Your task to perform on an android device: Open ESPN.com Image 0: 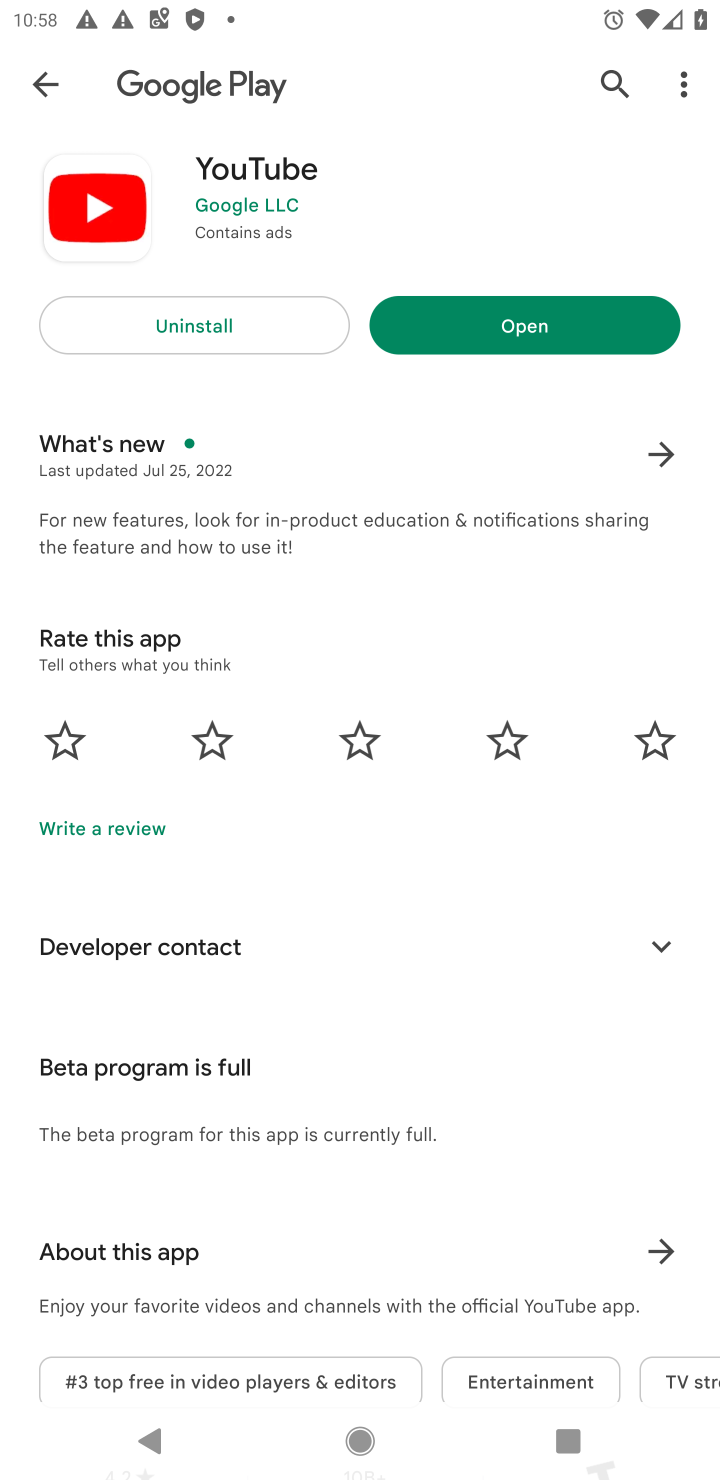
Step 0: press home button
Your task to perform on an android device: Open ESPN.com Image 1: 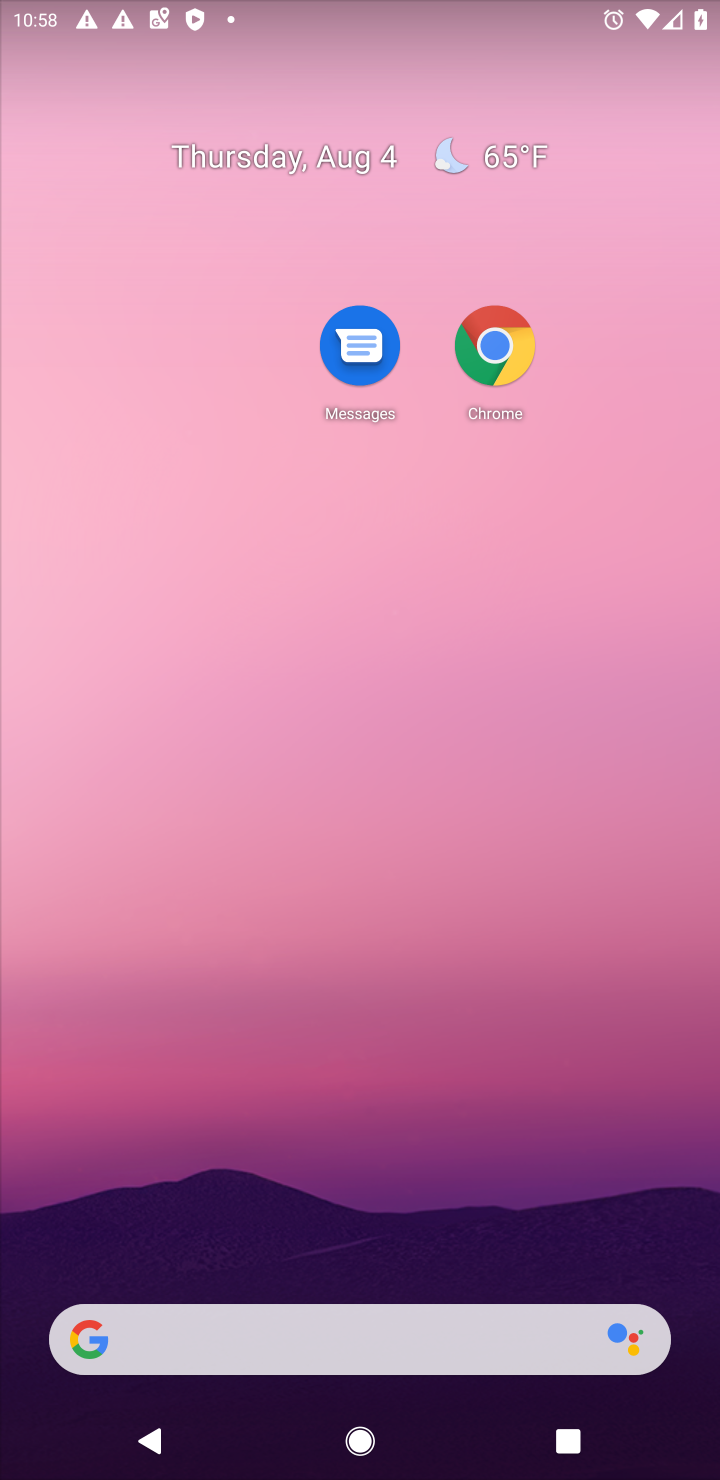
Step 1: drag from (404, 1198) to (613, 131)
Your task to perform on an android device: Open ESPN.com Image 2: 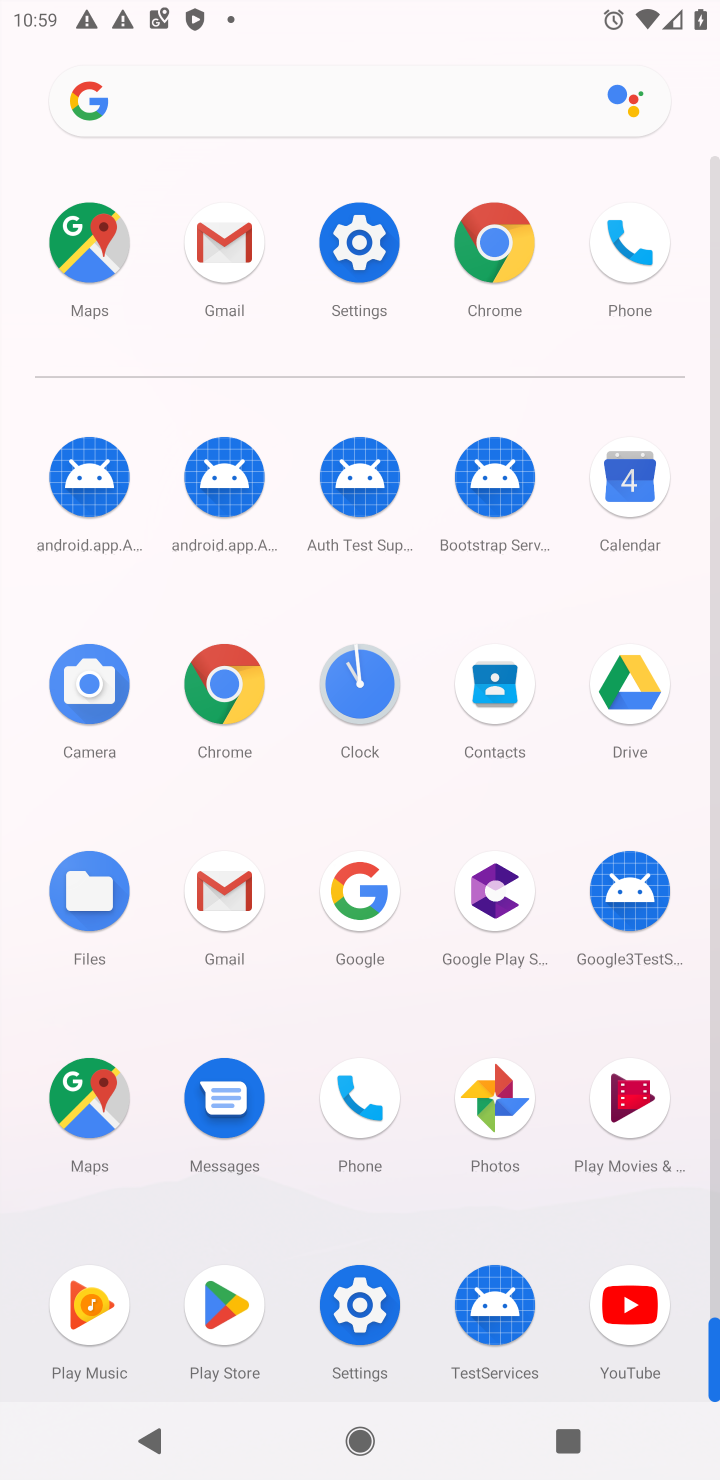
Step 2: click (498, 279)
Your task to perform on an android device: Open ESPN.com Image 3: 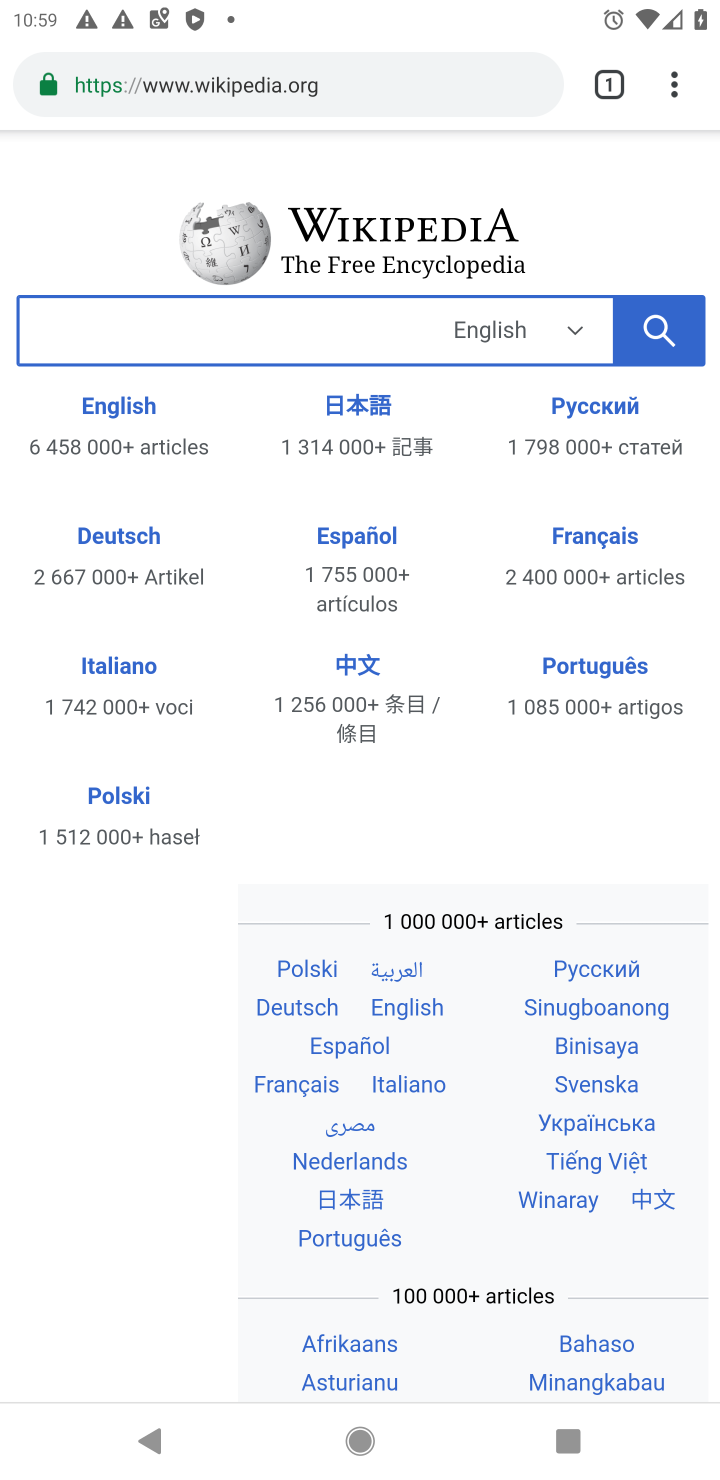
Step 3: click (367, 84)
Your task to perform on an android device: Open ESPN.com Image 4: 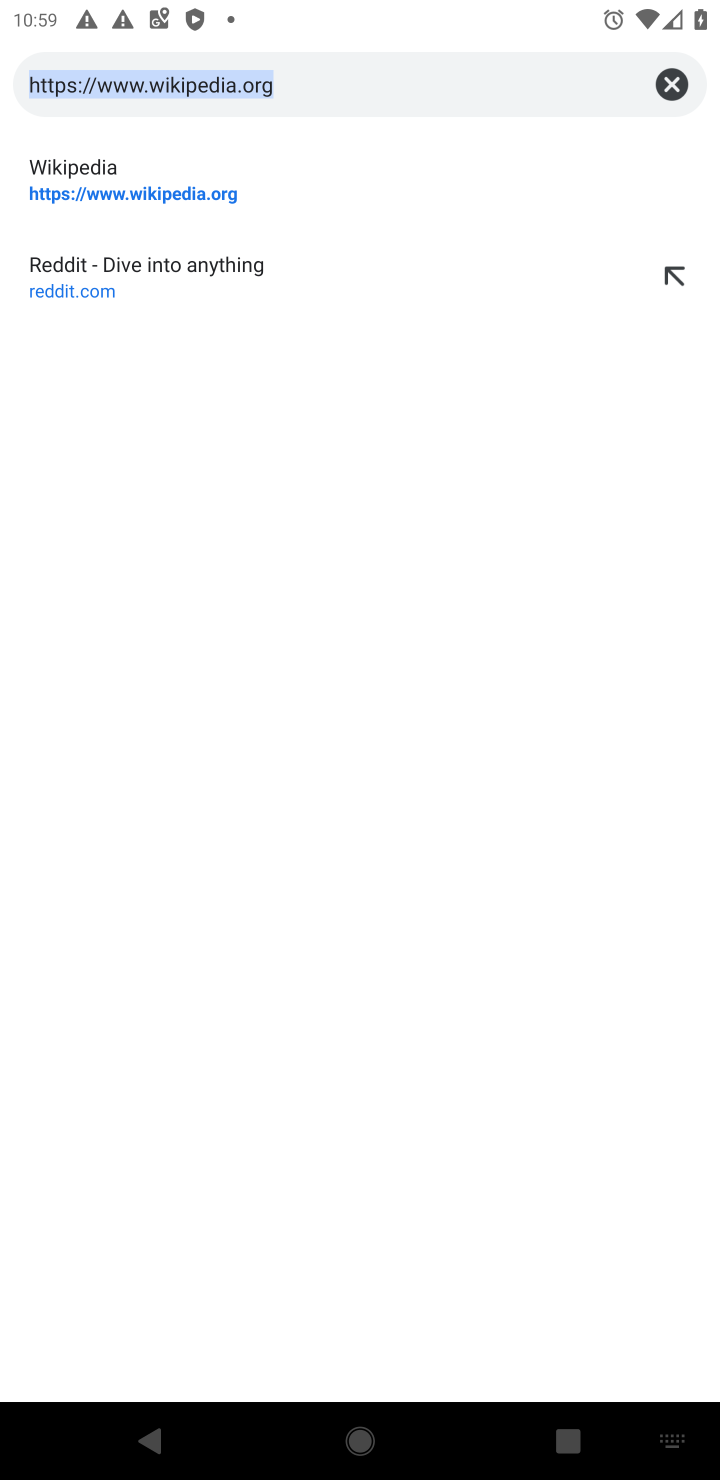
Step 4: click (677, 83)
Your task to perform on an android device: Open ESPN.com Image 5: 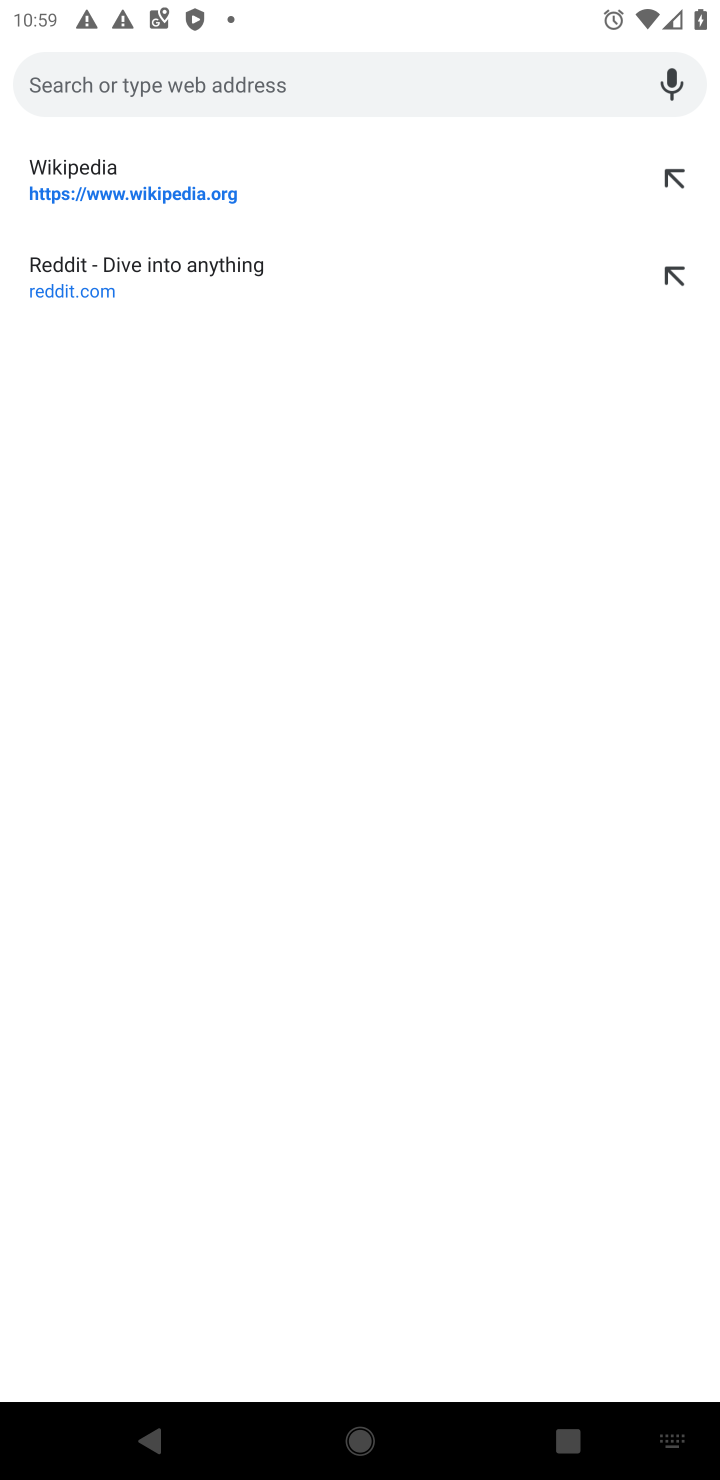
Step 5: type "espn.com"
Your task to perform on an android device: Open ESPN.com Image 6: 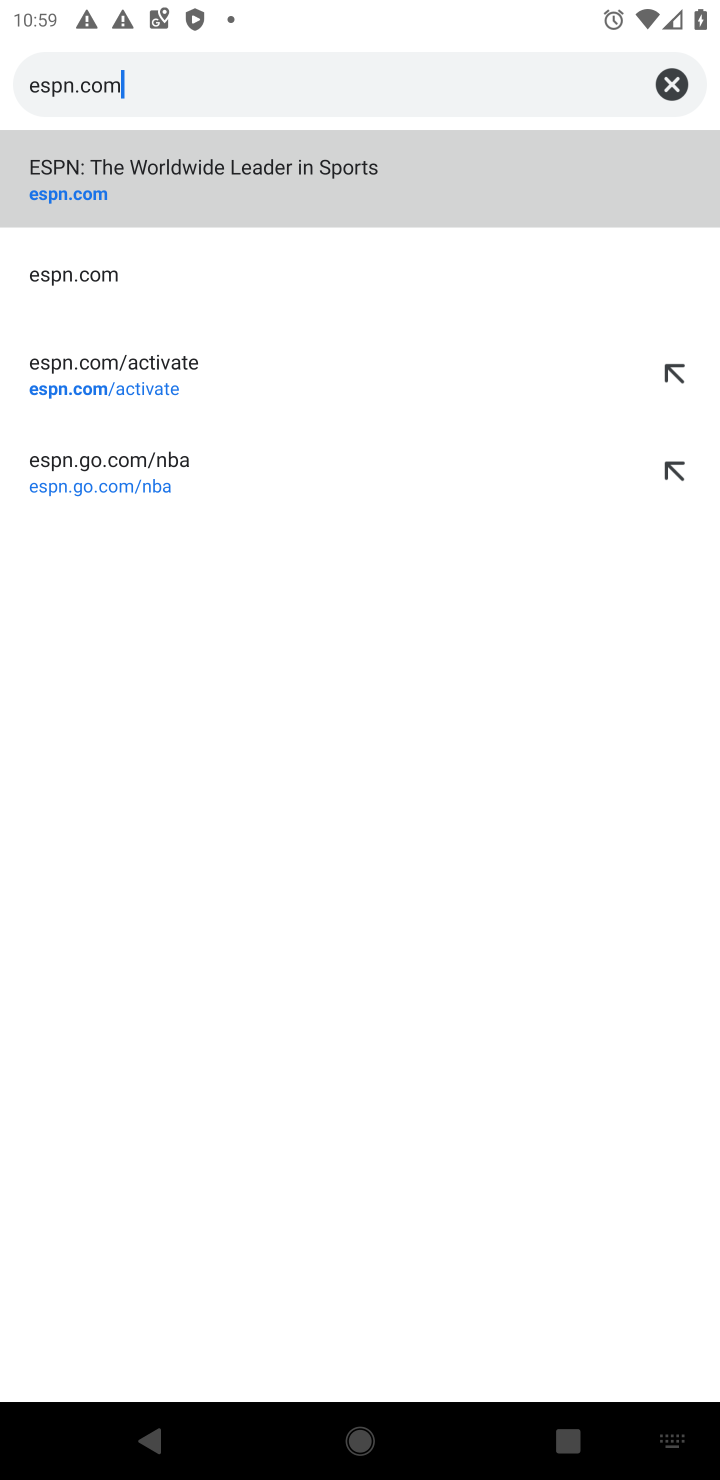
Step 6: click (61, 168)
Your task to perform on an android device: Open ESPN.com Image 7: 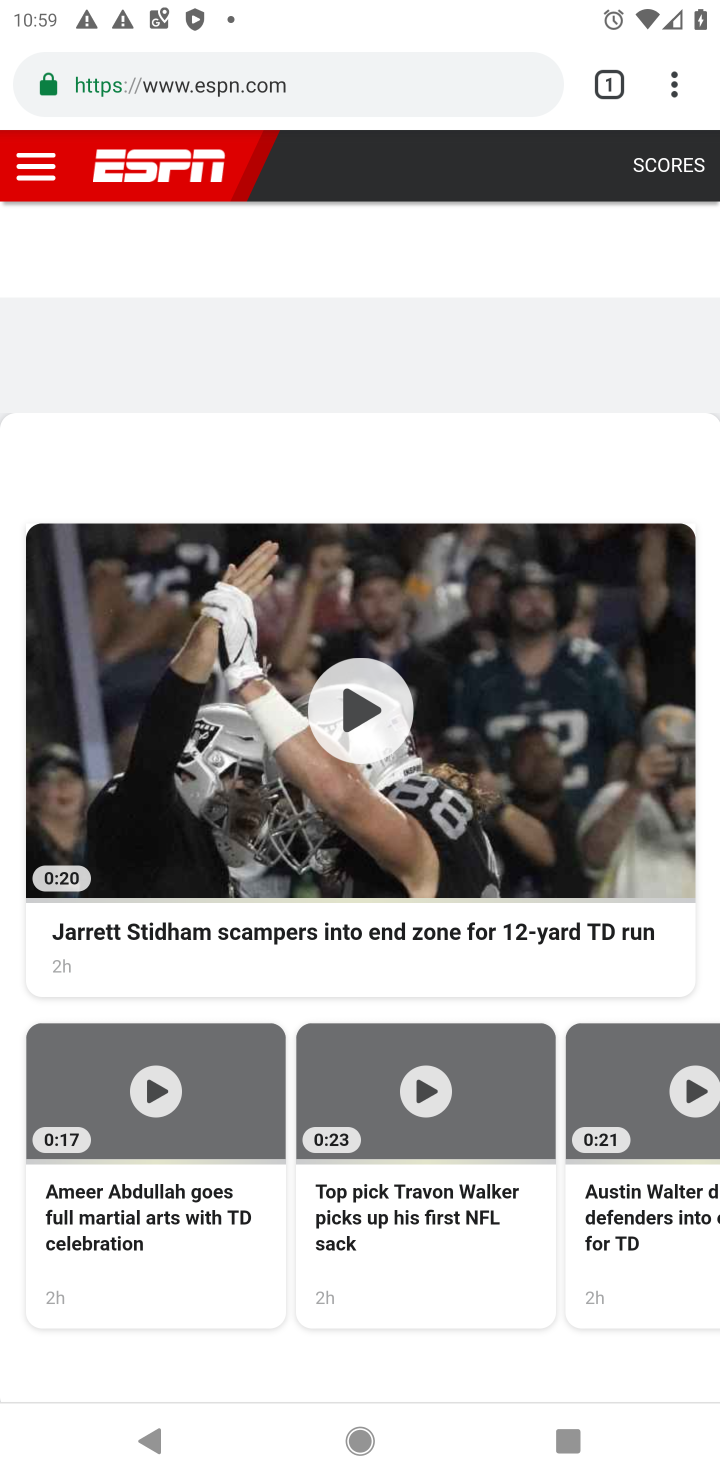
Step 7: task complete